Your task to perform on an android device: see creations saved in the google photos Image 0: 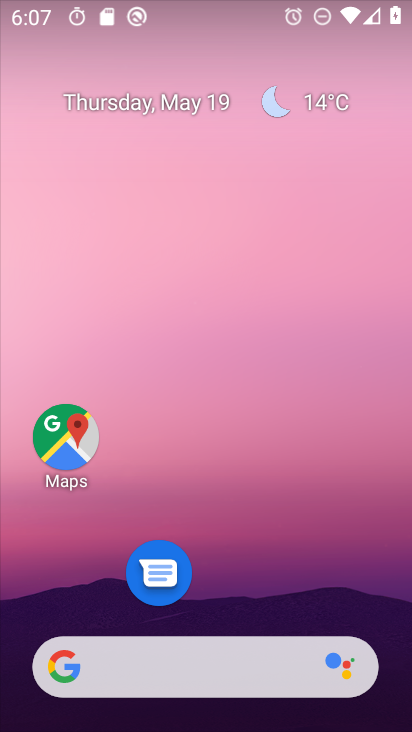
Step 0: drag from (250, 601) to (239, 59)
Your task to perform on an android device: see creations saved in the google photos Image 1: 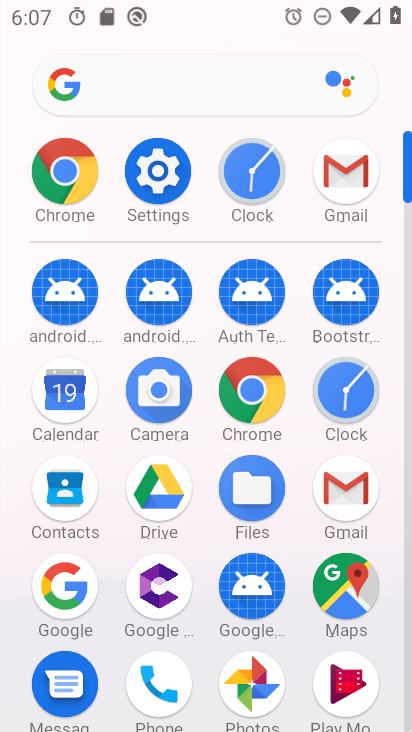
Step 1: click (246, 688)
Your task to perform on an android device: see creations saved in the google photos Image 2: 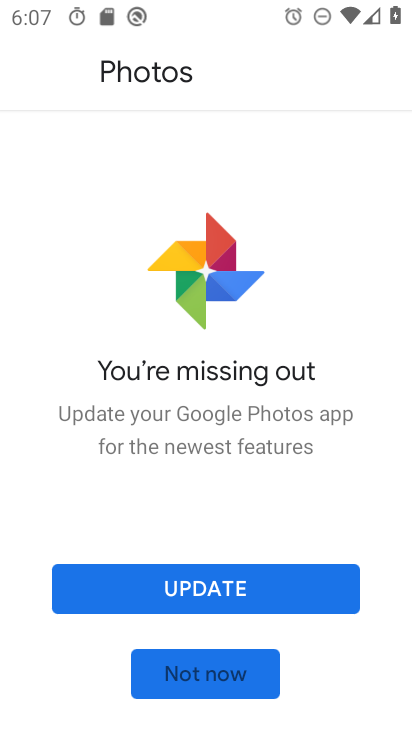
Step 2: click (234, 668)
Your task to perform on an android device: see creations saved in the google photos Image 3: 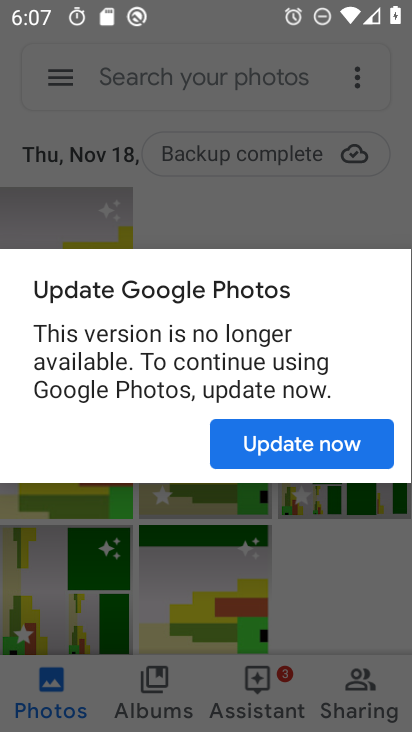
Step 3: click (313, 454)
Your task to perform on an android device: see creations saved in the google photos Image 4: 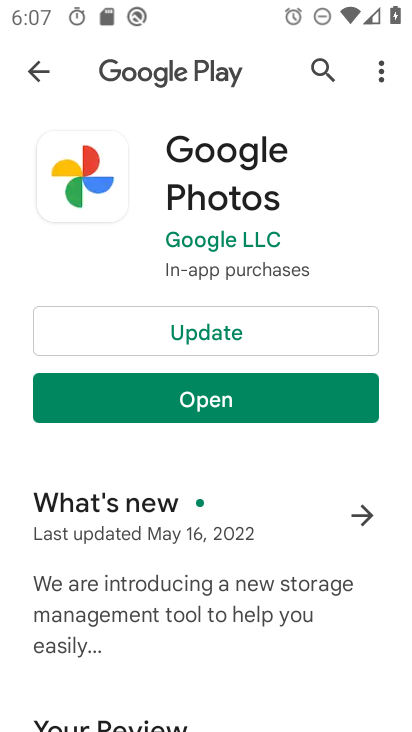
Step 4: click (220, 399)
Your task to perform on an android device: see creations saved in the google photos Image 5: 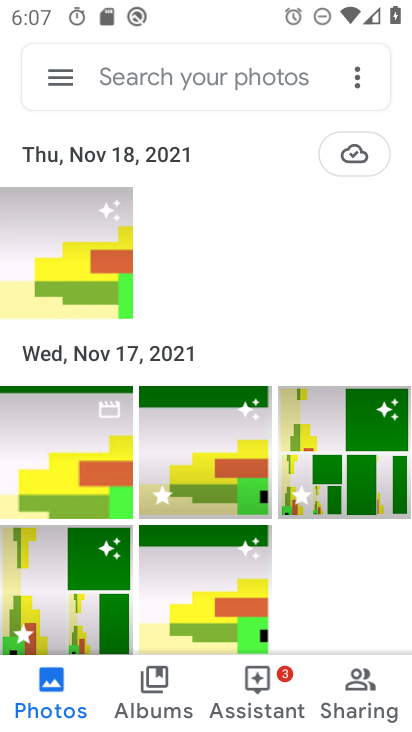
Step 5: click (220, 94)
Your task to perform on an android device: see creations saved in the google photos Image 6: 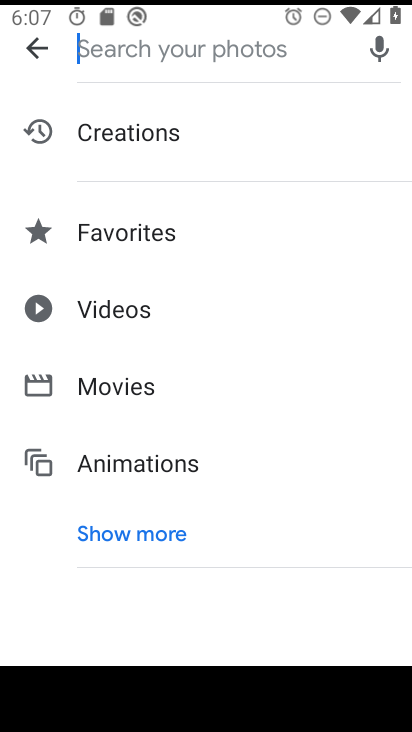
Step 6: click (149, 146)
Your task to perform on an android device: see creations saved in the google photos Image 7: 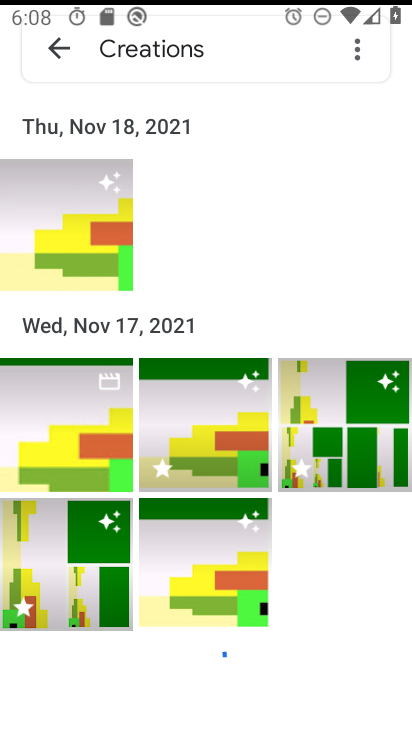
Step 7: task complete